Your task to perform on an android device: turn off javascript in the chrome app Image 0: 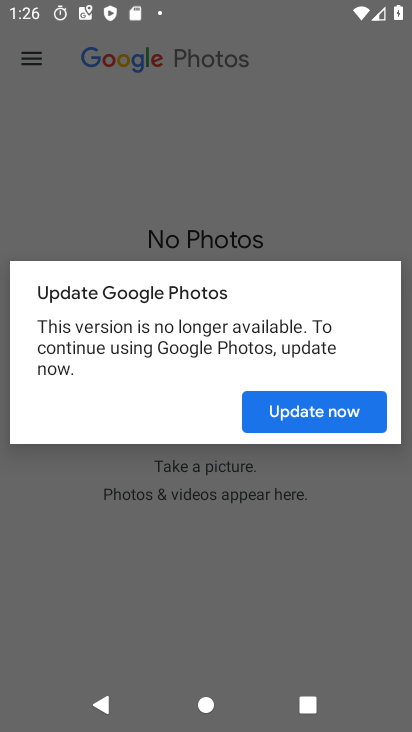
Step 0: press back button
Your task to perform on an android device: turn off javascript in the chrome app Image 1: 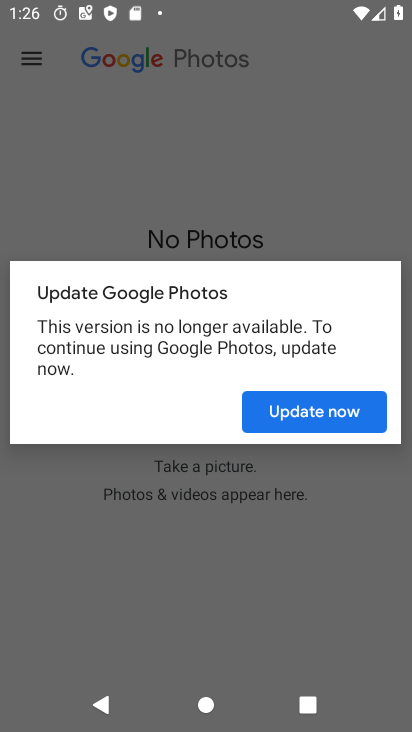
Step 1: press home button
Your task to perform on an android device: turn off javascript in the chrome app Image 2: 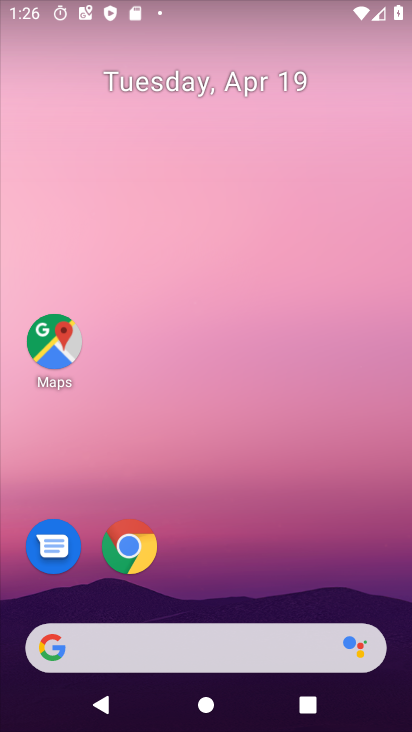
Step 2: click (111, 552)
Your task to perform on an android device: turn off javascript in the chrome app Image 3: 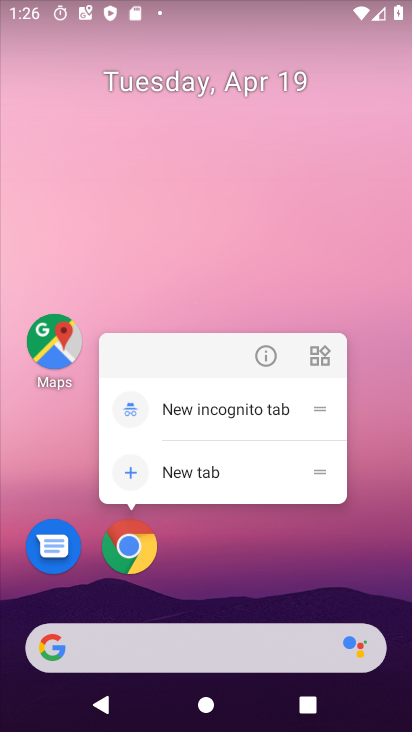
Step 3: click (133, 545)
Your task to perform on an android device: turn off javascript in the chrome app Image 4: 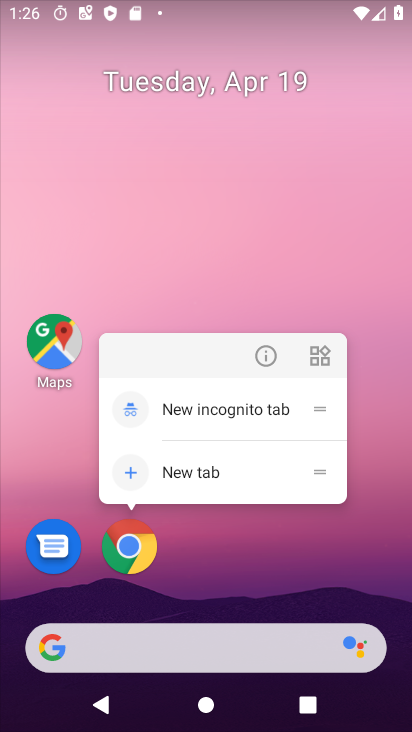
Step 4: click (136, 536)
Your task to perform on an android device: turn off javascript in the chrome app Image 5: 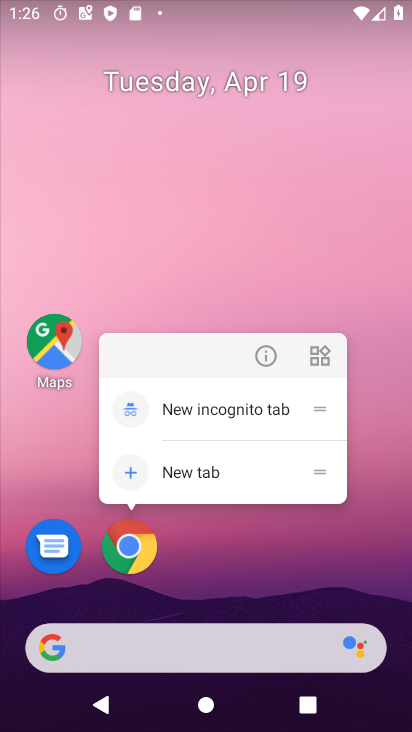
Step 5: click (121, 559)
Your task to perform on an android device: turn off javascript in the chrome app Image 6: 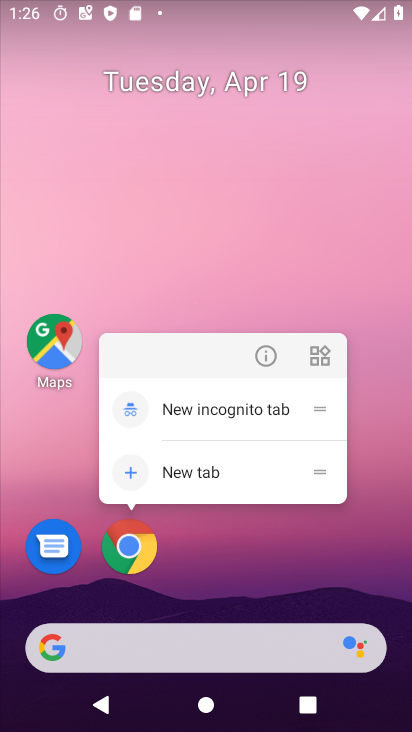
Step 6: click (132, 550)
Your task to perform on an android device: turn off javascript in the chrome app Image 7: 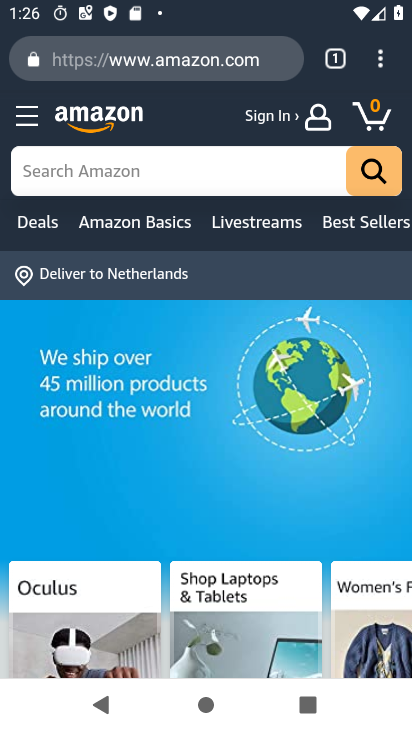
Step 7: click (383, 63)
Your task to perform on an android device: turn off javascript in the chrome app Image 8: 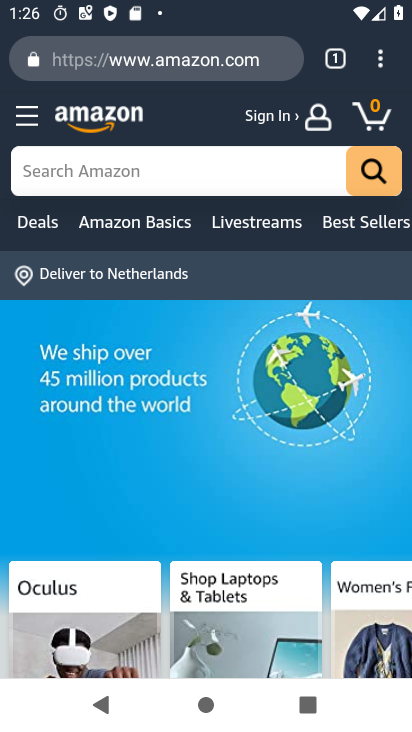
Step 8: drag from (373, 50) to (164, 562)
Your task to perform on an android device: turn off javascript in the chrome app Image 9: 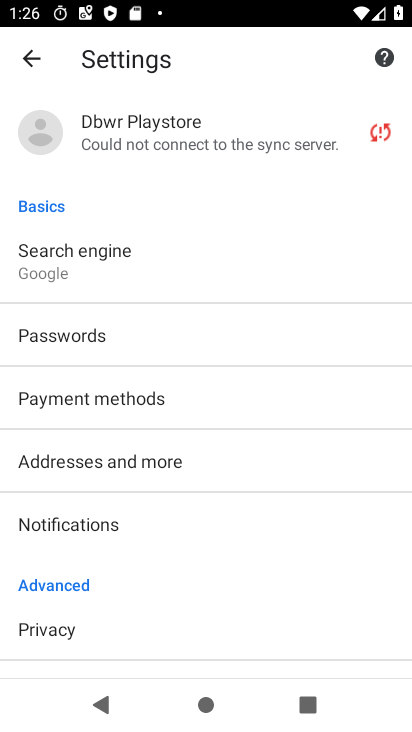
Step 9: drag from (110, 635) to (214, 118)
Your task to perform on an android device: turn off javascript in the chrome app Image 10: 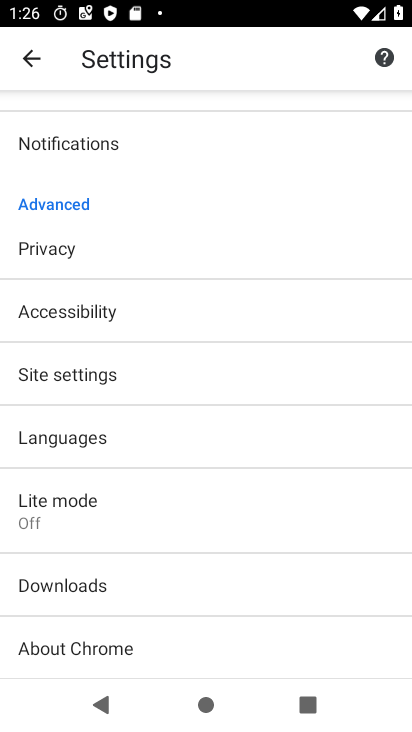
Step 10: click (112, 369)
Your task to perform on an android device: turn off javascript in the chrome app Image 11: 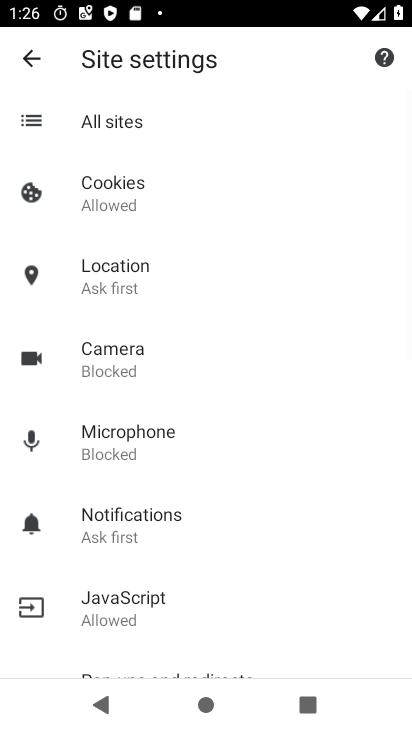
Step 11: click (123, 618)
Your task to perform on an android device: turn off javascript in the chrome app Image 12: 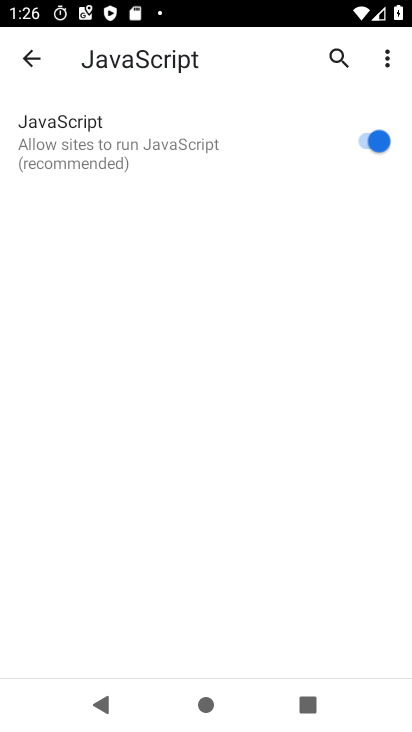
Step 12: click (374, 134)
Your task to perform on an android device: turn off javascript in the chrome app Image 13: 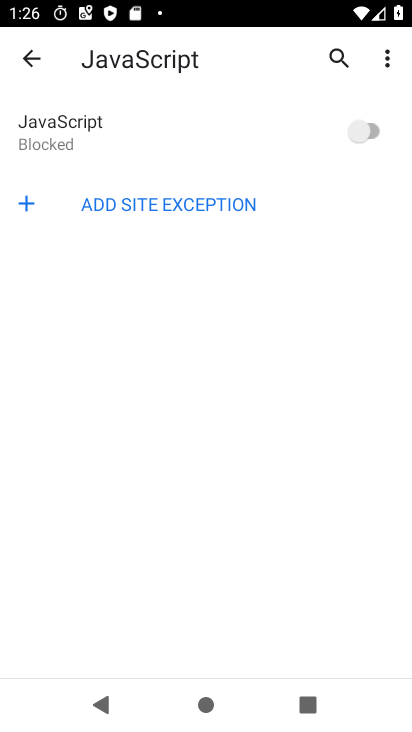
Step 13: task complete